Your task to perform on an android device: toggle airplane mode Image 0: 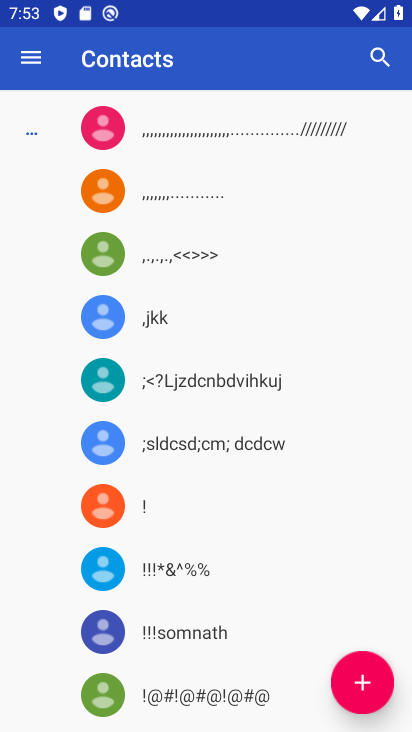
Step 0: press home button
Your task to perform on an android device: toggle airplane mode Image 1: 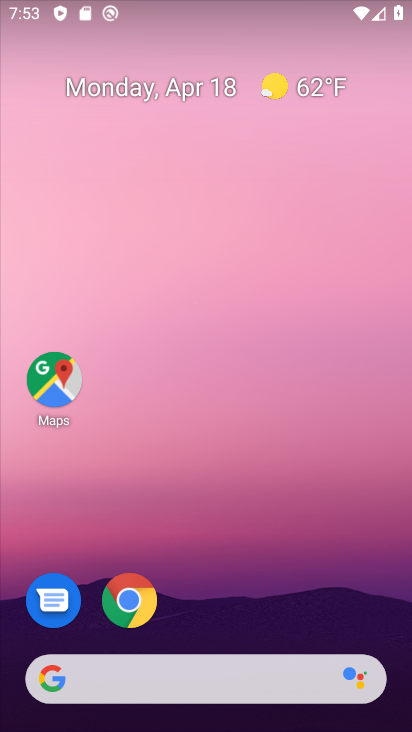
Step 1: drag from (223, 642) to (347, 9)
Your task to perform on an android device: toggle airplane mode Image 2: 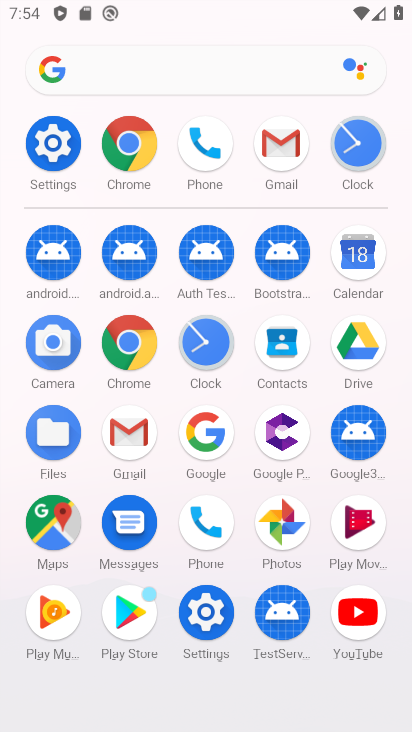
Step 2: click (14, 142)
Your task to perform on an android device: toggle airplane mode Image 3: 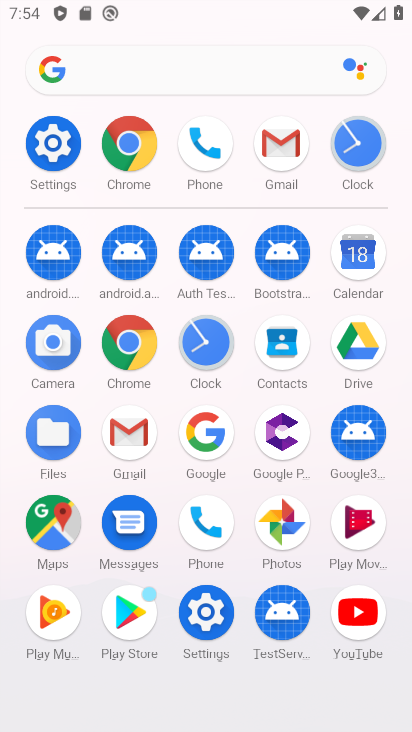
Step 3: click (45, 144)
Your task to perform on an android device: toggle airplane mode Image 4: 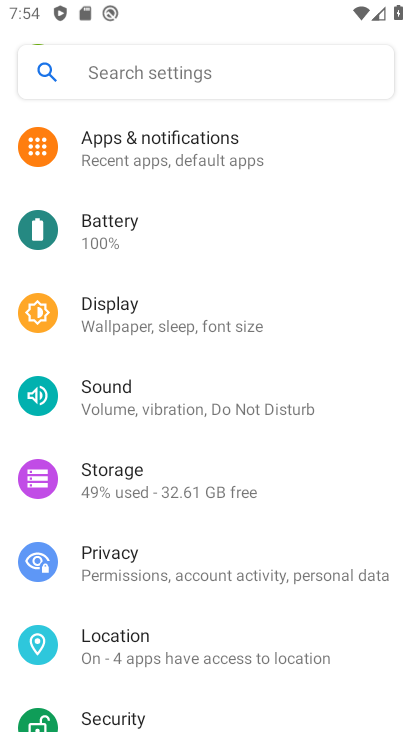
Step 4: drag from (138, 198) to (163, 434)
Your task to perform on an android device: toggle airplane mode Image 5: 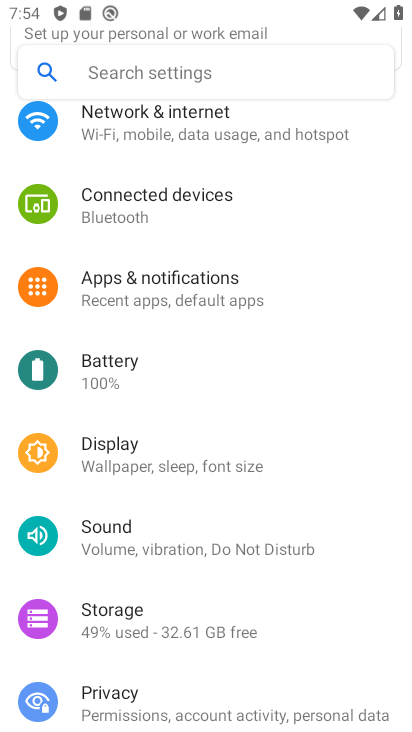
Step 5: click (151, 126)
Your task to perform on an android device: toggle airplane mode Image 6: 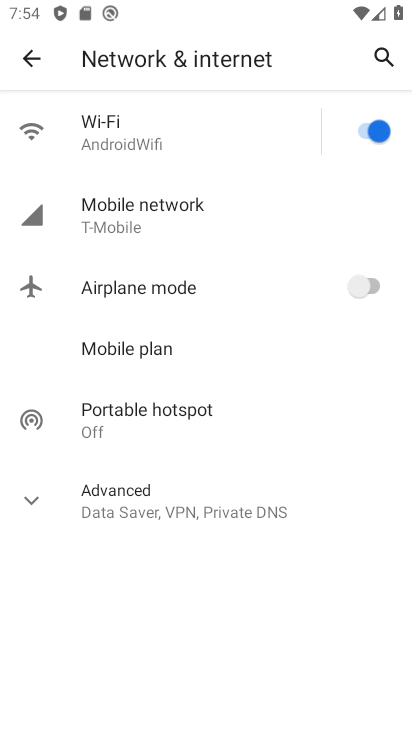
Step 6: click (363, 277)
Your task to perform on an android device: toggle airplane mode Image 7: 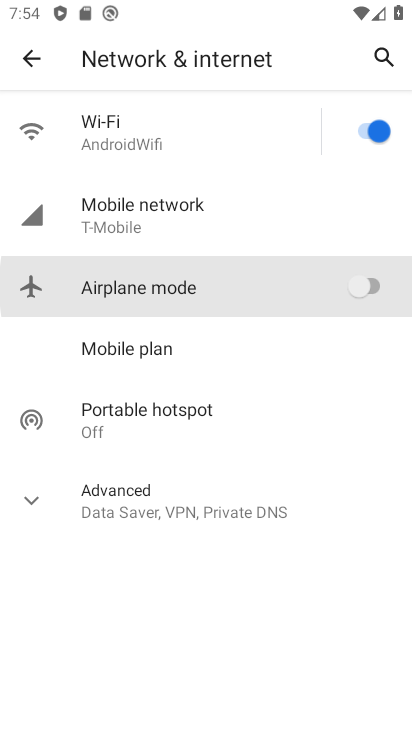
Step 7: task complete